Your task to perform on an android device: Open the phone app and click the voicemail tab. Image 0: 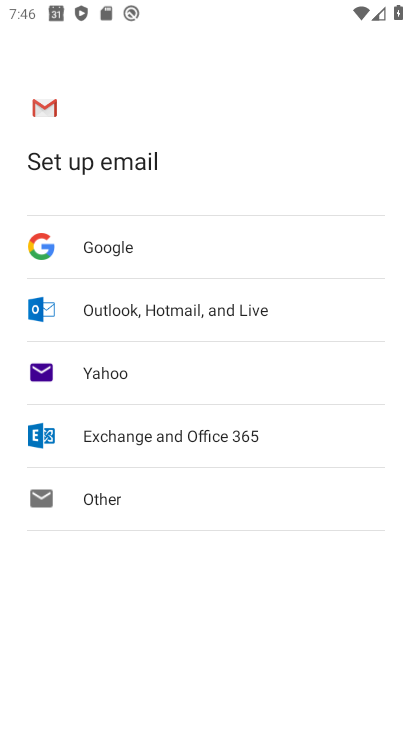
Step 0: press home button
Your task to perform on an android device: Open the phone app and click the voicemail tab. Image 1: 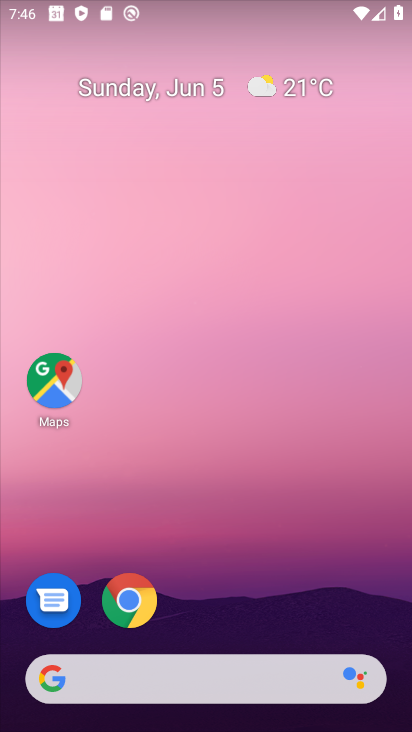
Step 1: drag from (170, 729) to (90, 194)
Your task to perform on an android device: Open the phone app and click the voicemail tab. Image 2: 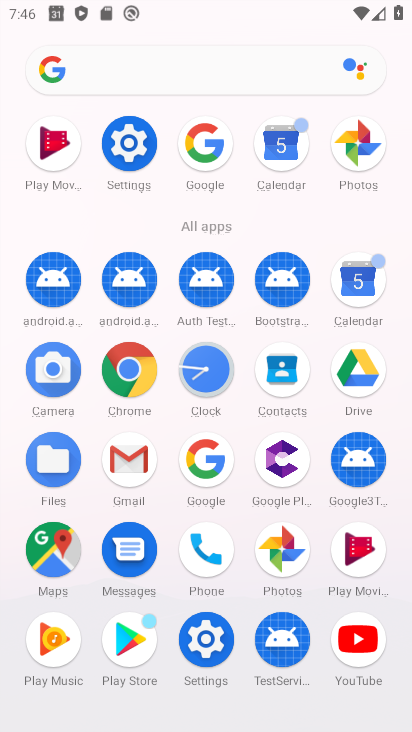
Step 2: click (203, 562)
Your task to perform on an android device: Open the phone app and click the voicemail tab. Image 3: 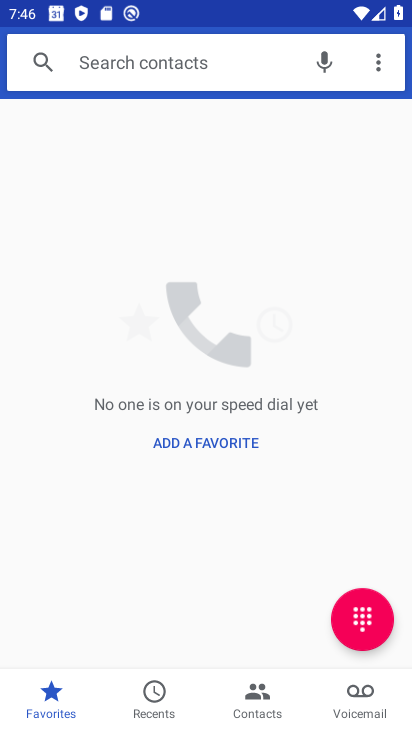
Step 3: click (353, 699)
Your task to perform on an android device: Open the phone app and click the voicemail tab. Image 4: 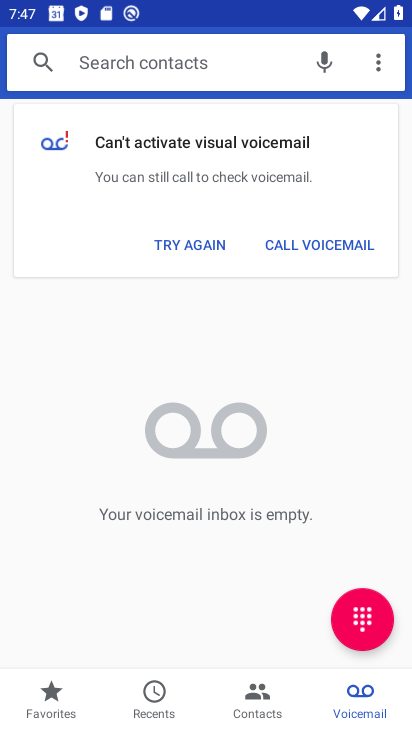
Step 4: task complete